Your task to perform on an android device: change the clock style Image 0: 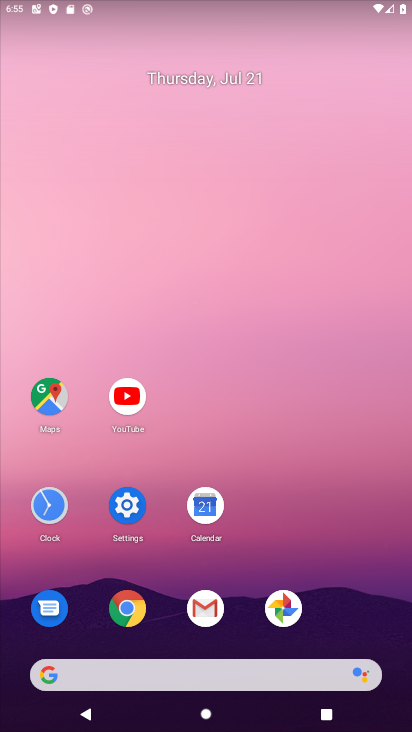
Step 0: click (44, 502)
Your task to perform on an android device: change the clock style Image 1: 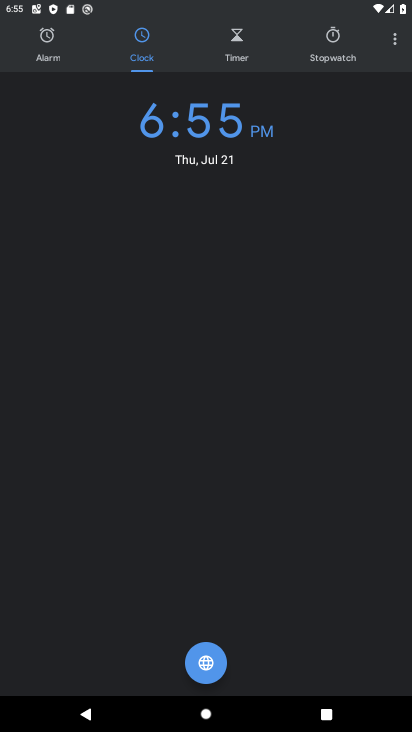
Step 1: click (392, 36)
Your task to perform on an android device: change the clock style Image 2: 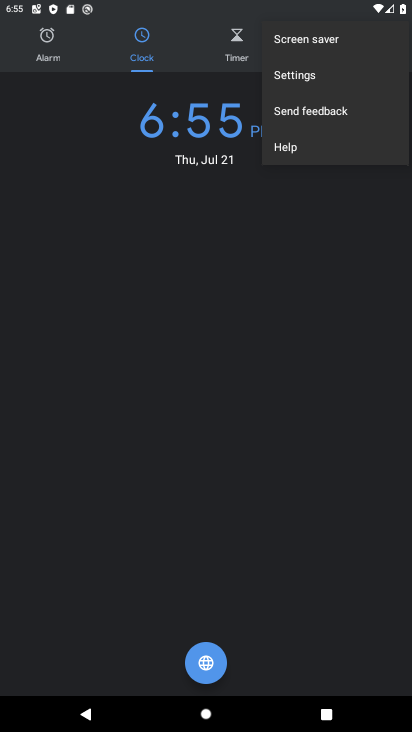
Step 2: click (306, 72)
Your task to perform on an android device: change the clock style Image 3: 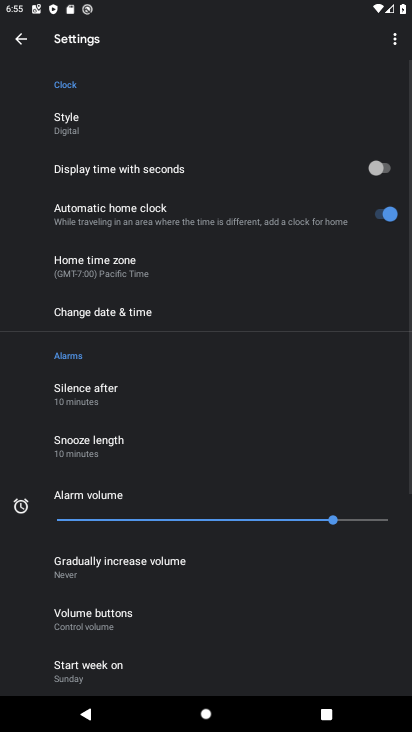
Step 3: click (64, 118)
Your task to perform on an android device: change the clock style Image 4: 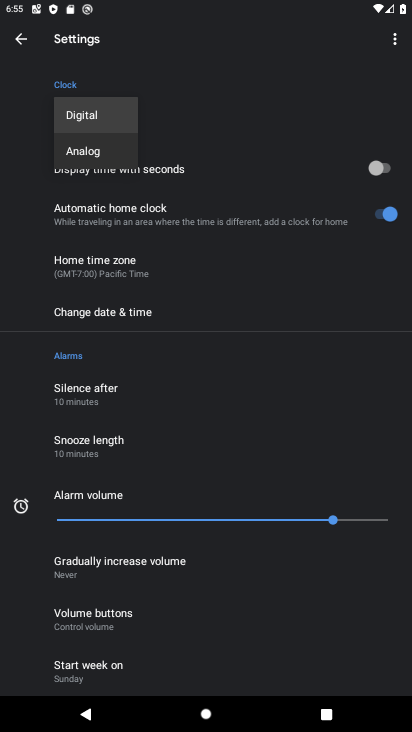
Step 4: click (98, 152)
Your task to perform on an android device: change the clock style Image 5: 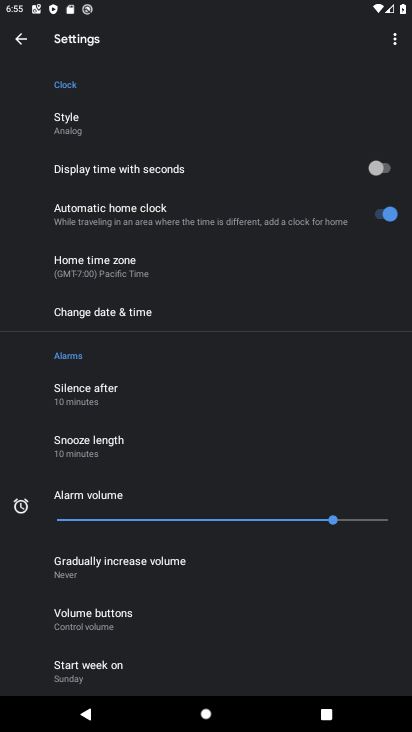
Step 5: task complete